Your task to perform on an android device: toggle notification dots Image 0: 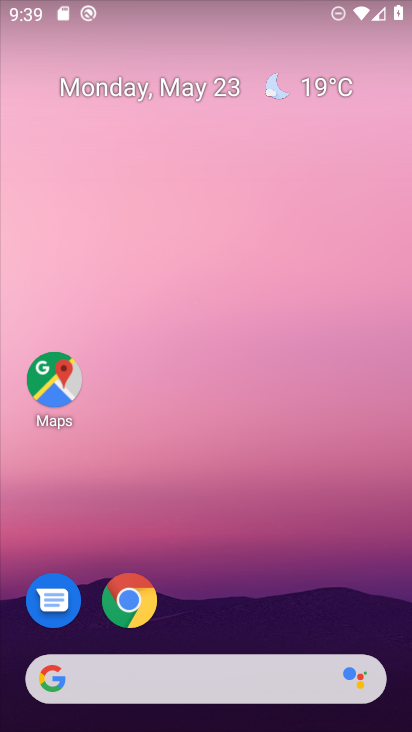
Step 0: drag from (27, 725) to (296, 103)
Your task to perform on an android device: toggle notification dots Image 1: 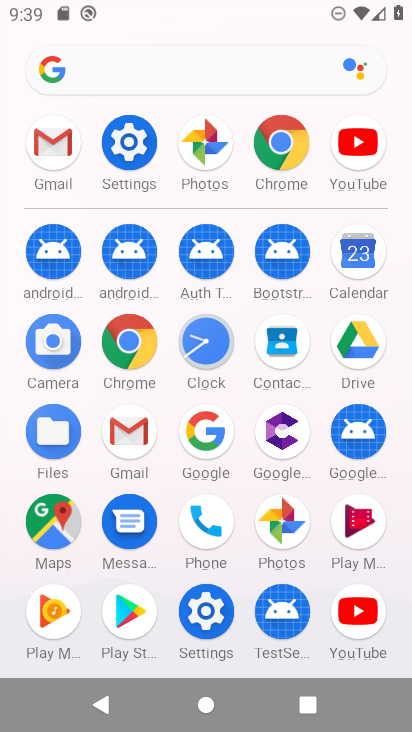
Step 1: click (112, 141)
Your task to perform on an android device: toggle notification dots Image 2: 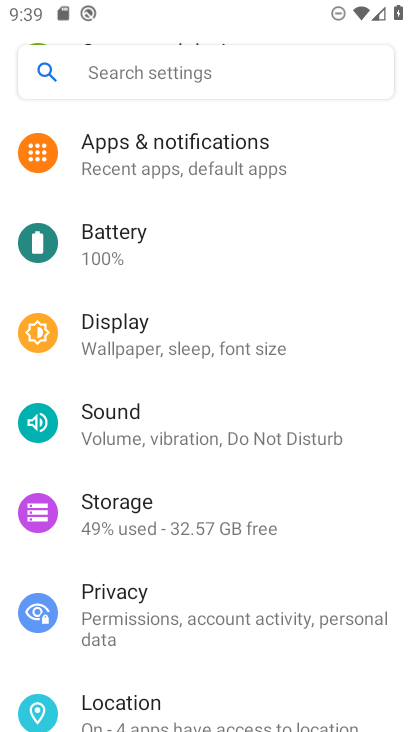
Step 2: click (213, 174)
Your task to perform on an android device: toggle notification dots Image 3: 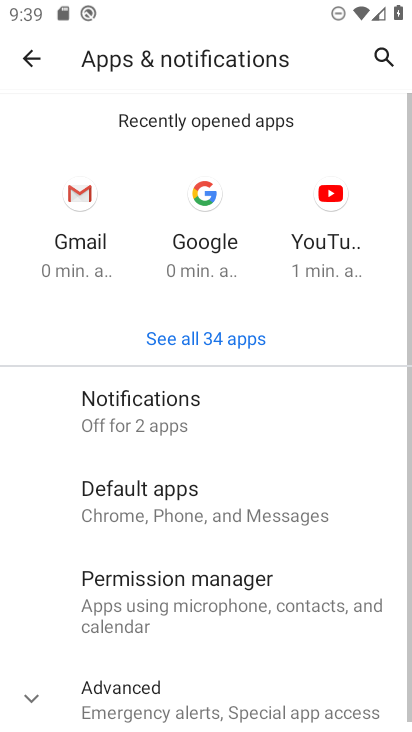
Step 3: click (164, 419)
Your task to perform on an android device: toggle notification dots Image 4: 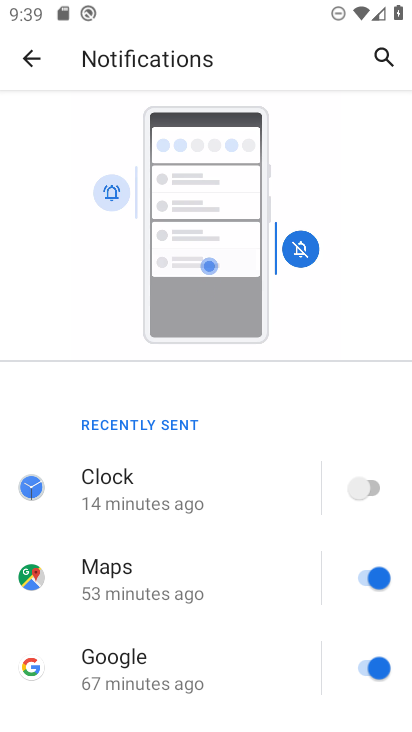
Step 4: drag from (12, 544) to (210, 108)
Your task to perform on an android device: toggle notification dots Image 5: 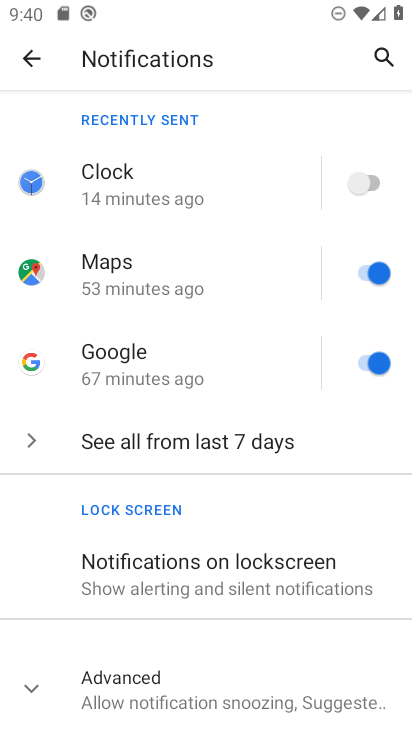
Step 5: click (146, 700)
Your task to perform on an android device: toggle notification dots Image 6: 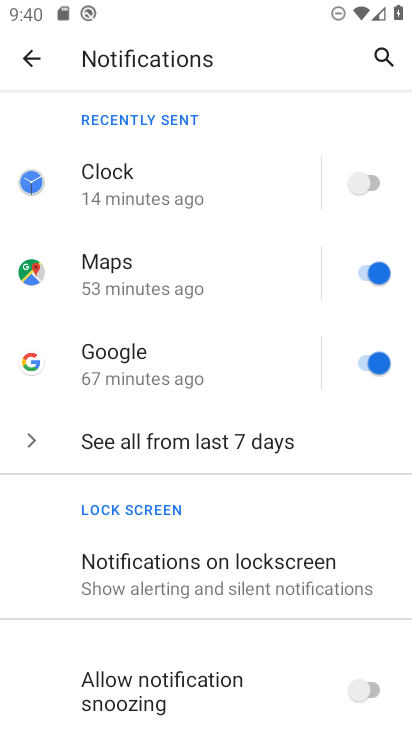
Step 6: drag from (8, 548) to (220, 233)
Your task to perform on an android device: toggle notification dots Image 7: 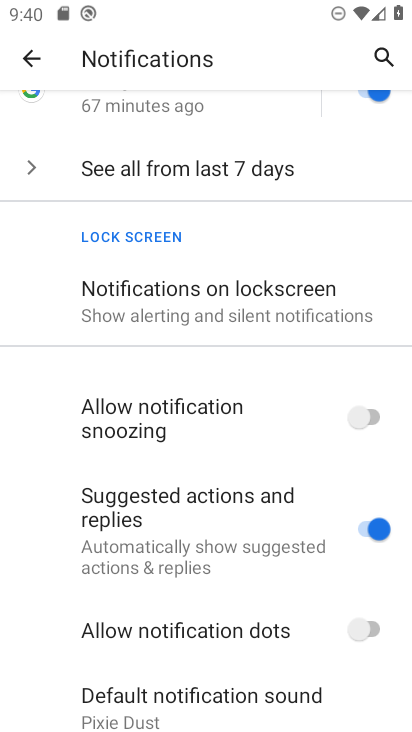
Step 7: click (352, 626)
Your task to perform on an android device: toggle notification dots Image 8: 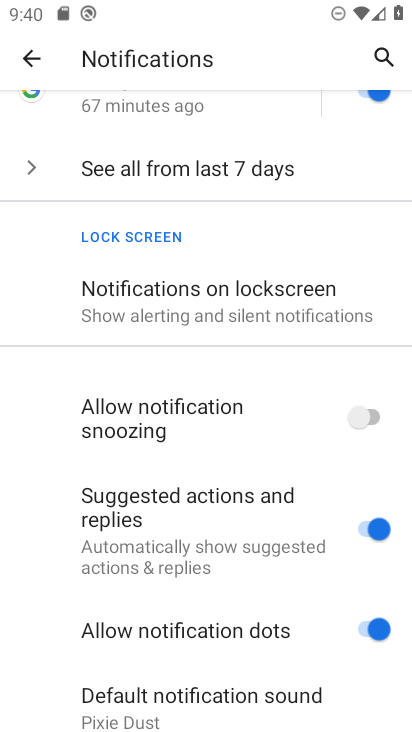
Step 8: task complete